Your task to perform on an android device: Go to wifi settings Image 0: 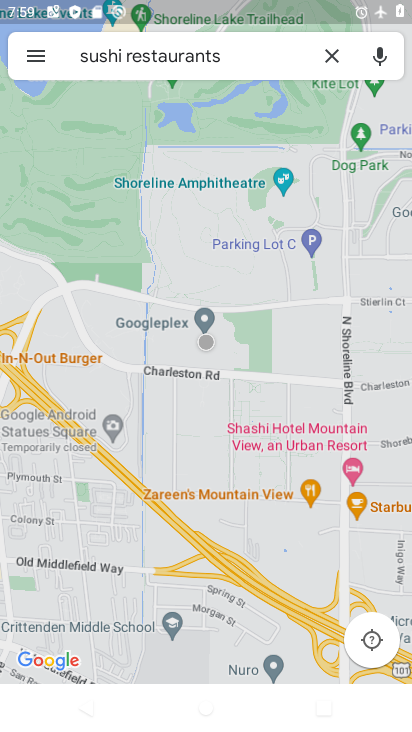
Step 0: drag from (286, 105) to (273, 673)
Your task to perform on an android device: Go to wifi settings Image 1: 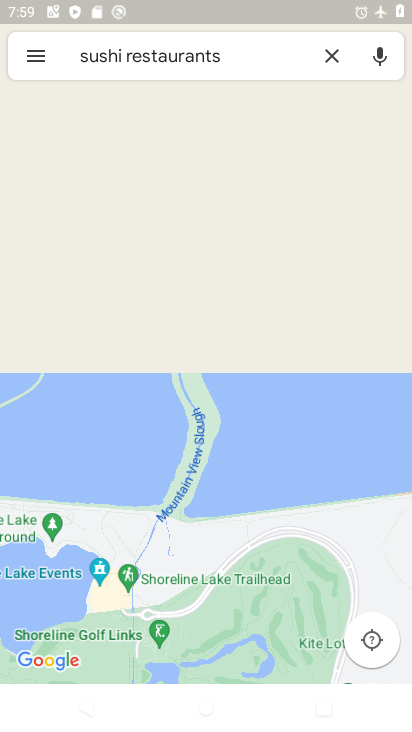
Step 1: press home button
Your task to perform on an android device: Go to wifi settings Image 2: 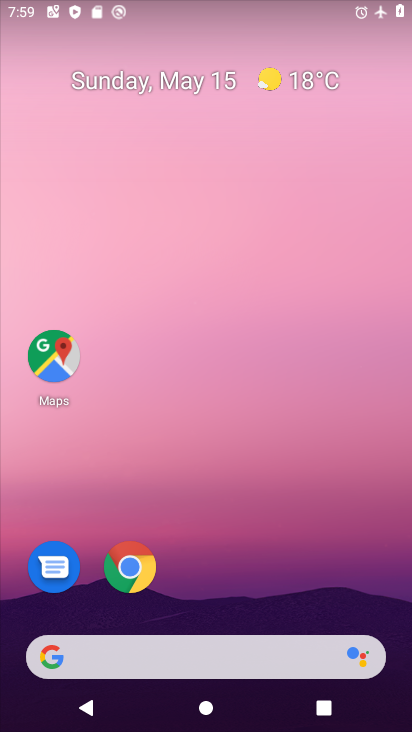
Step 2: drag from (155, 713) to (312, 10)
Your task to perform on an android device: Go to wifi settings Image 3: 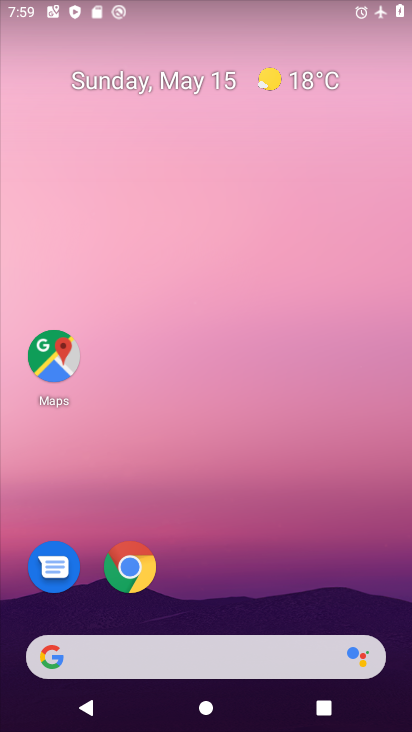
Step 3: drag from (129, 700) to (208, 79)
Your task to perform on an android device: Go to wifi settings Image 4: 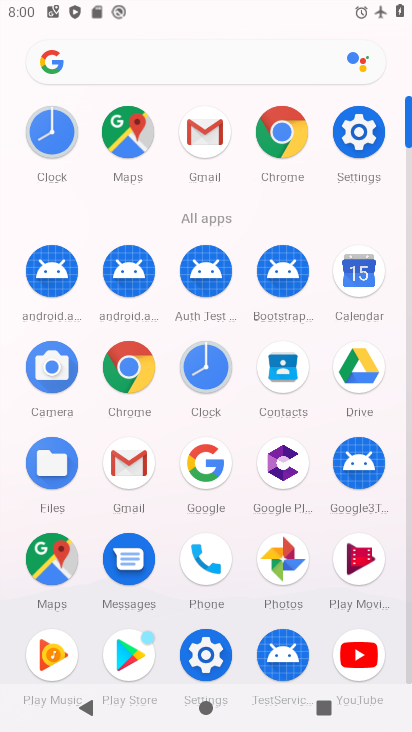
Step 4: click (358, 135)
Your task to perform on an android device: Go to wifi settings Image 5: 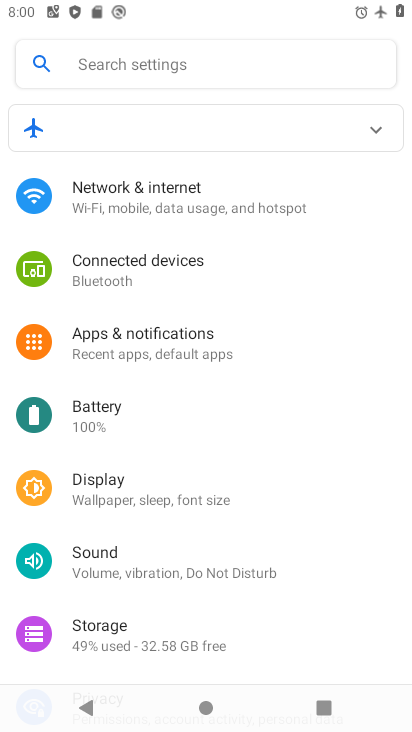
Step 5: click (265, 205)
Your task to perform on an android device: Go to wifi settings Image 6: 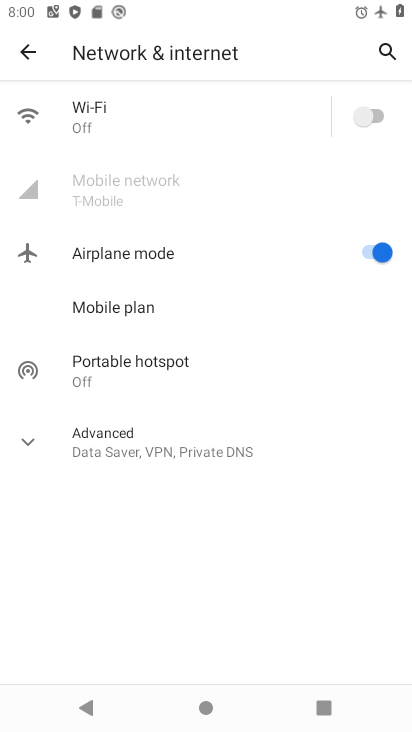
Step 6: click (167, 108)
Your task to perform on an android device: Go to wifi settings Image 7: 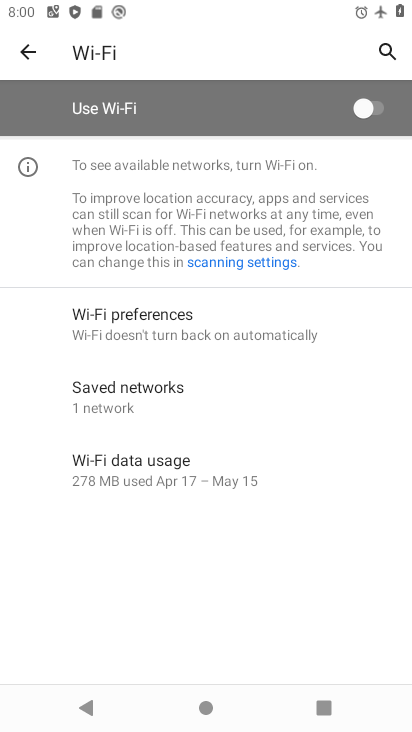
Step 7: task complete